Your task to perform on an android device: turn on the 24-hour format for clock Image 0: 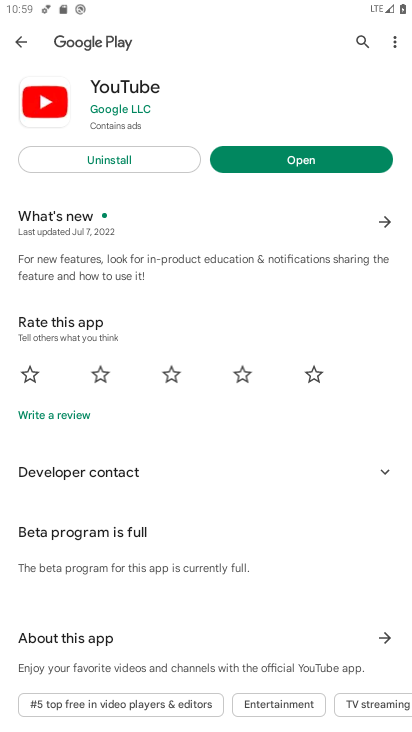
Step 0: press home button
Your task to perform on an android device: turn on the 24-hour format for clock Image 1: 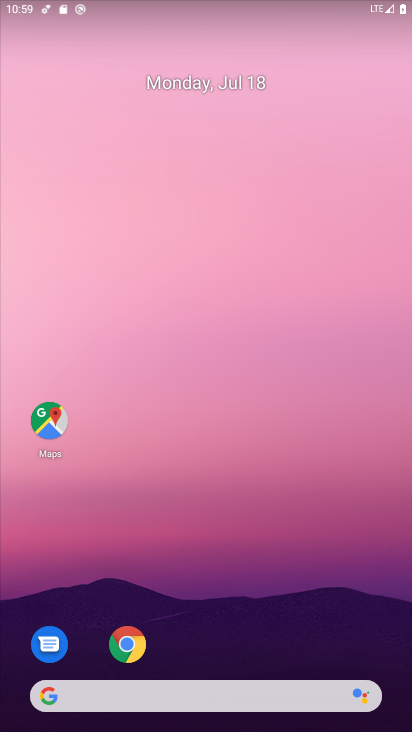
Step 1: drag from (348, 628) to (392, 119)
Your task to perform on an android device: turn on the 24-hour format for clock Image 2: 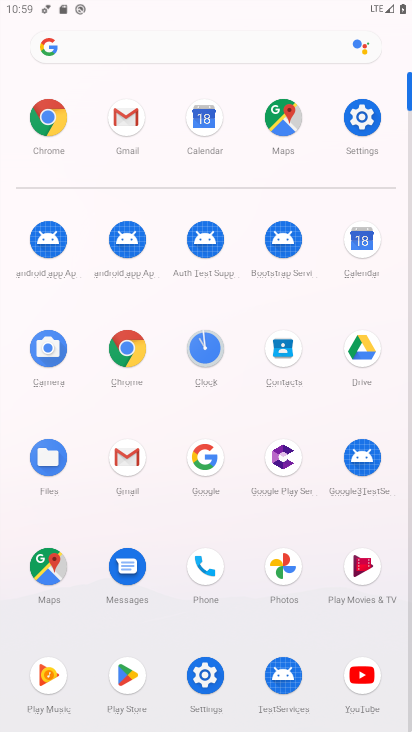
Step 2: click (205, 345)
Your task to perform on an android device: turn on the 24-hour format for clock Image 3: 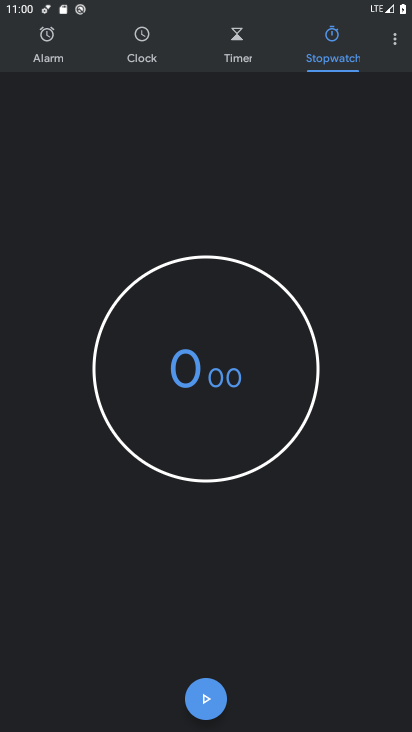
Step 3: click (393, 44)
Your task to perform on an android device: turn on the 24-hour format for clock Image 4: 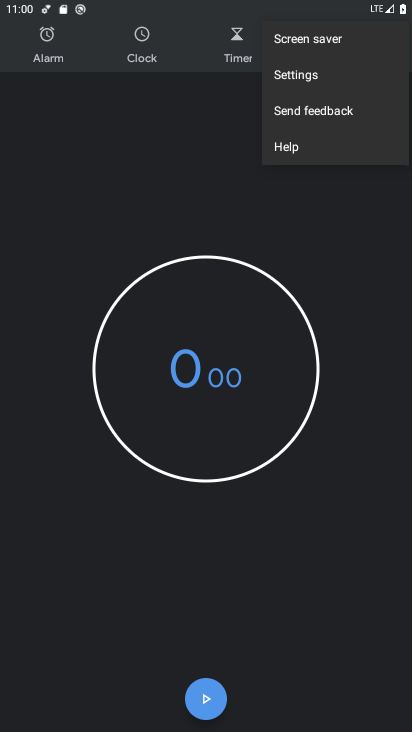
Step 4: click (325, 73)
Your task to perform on an android device: turn on the 24-hour format for clock Image 5: 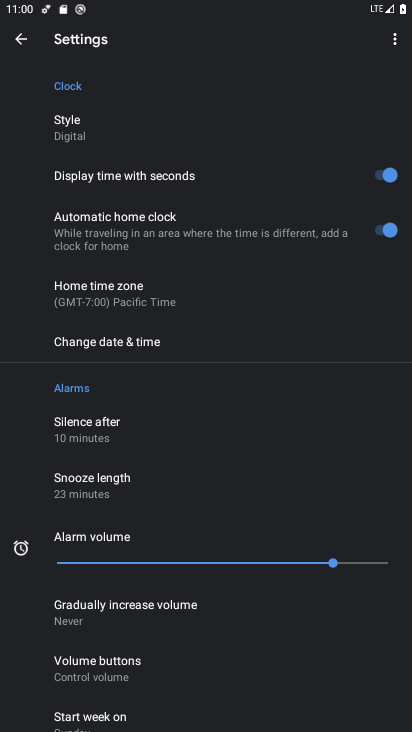
Step 5: drag from (322, 362) to (330, 299)
Your task to perform on an android device: turn on the 24-hour format for clock Image 6: 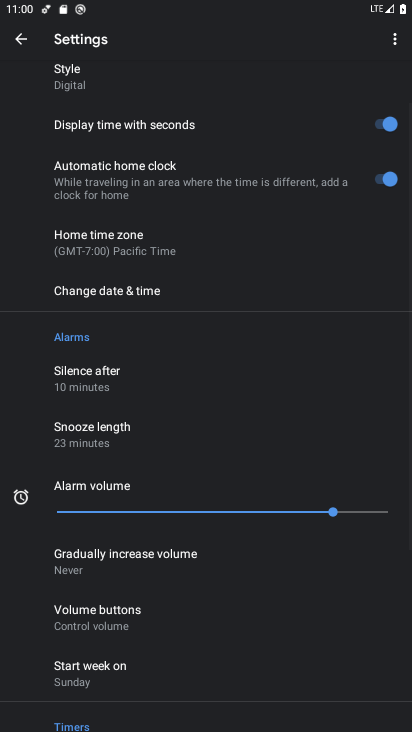
Step 6: drag from (329, 390) to (329, 332)
Your task to perform on an android device: turn on the 24-hour format for clock Image 7: 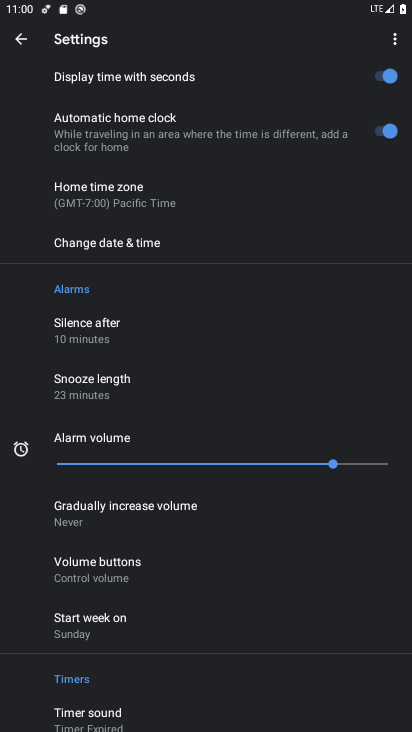
Step 7: drag from (319, 408) to (320, 318)
Your task to perform on an android device: turn on the 24-hour format for clock Image 8: 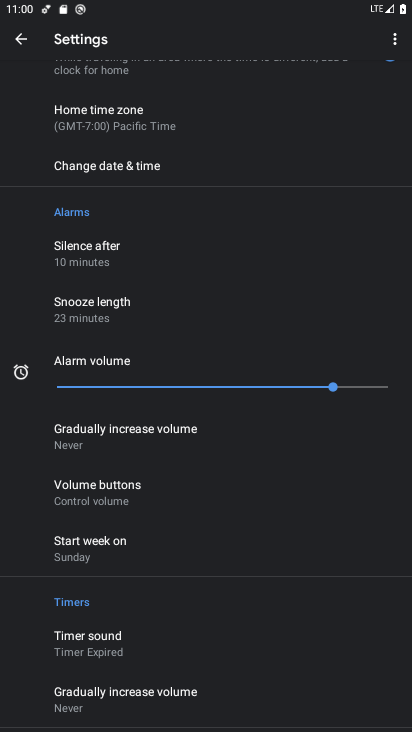
Step 8: drag from (311, 464) to (310, 365)
Your task to perform on an android device: turn on the 24-hour format for clock Image 9: 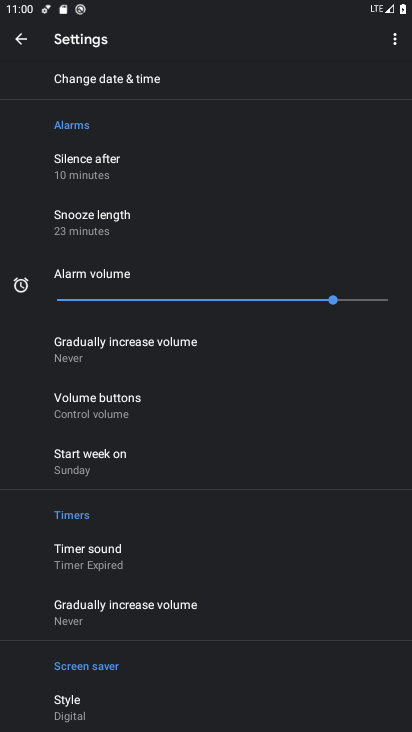
Step 9: drag from (303, 473) to (303, 358)
Your task to perform on an android device: turn on the 24-hour format for clock Image 10: 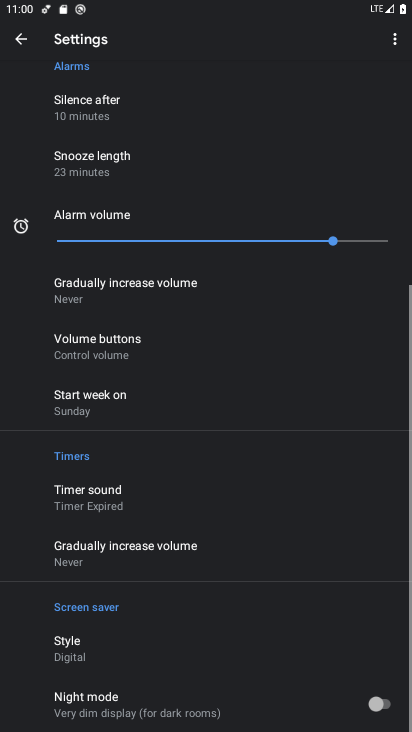
Step 10: drag from (307, 313) to (309, 414)
Your task to perform on an android device: turn on the 24-hour format for clock Image 11: 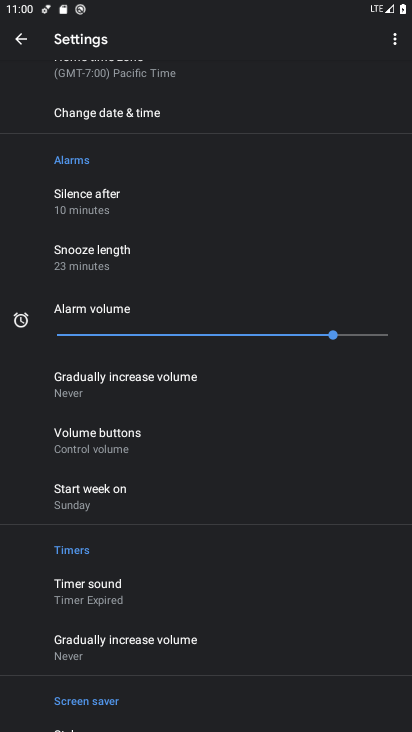
Step 11: drag from (305, 295) to (301, 460)
Your task to perform on an android device: turn on the 24-hour format for clock Image 12: 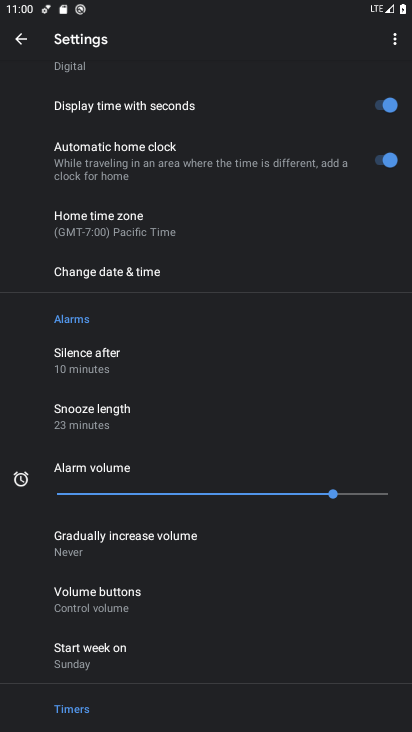
Step 12: drag from (295, 241) to (290, 361)
Your task to perform on an android device: turn on the 24-hour format for clock Image 13: 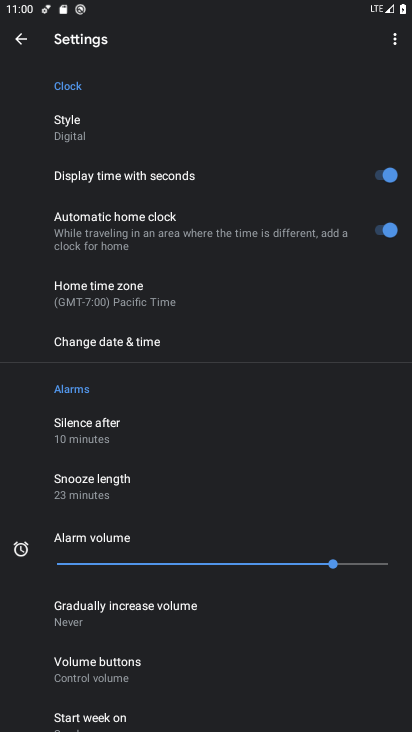
Step 13: click (218, 354)
Your task to perform on an android device: turn on the 24-hour format for clock Image 14: 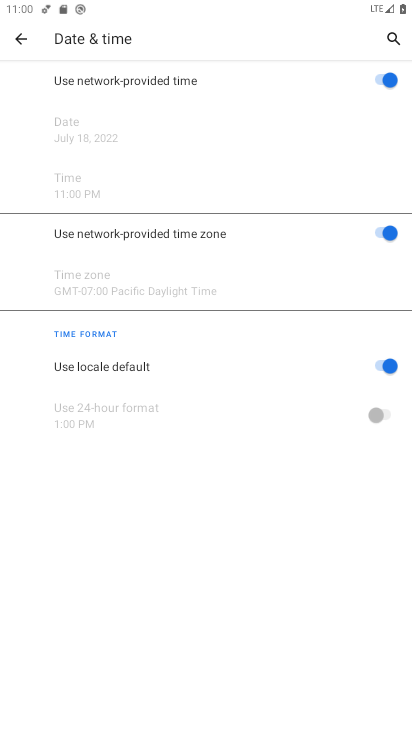
Step 14: click (388, 366)
Your task to perform on an android device: turn on the 24-hour format for clock Image 15: 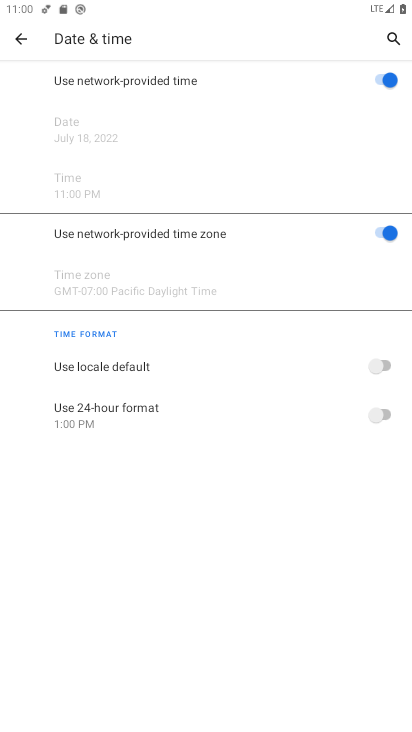
Step 15: click (374, 419)
Your task to perform on an android device: turn on the 24-hour format for clock Image 16: 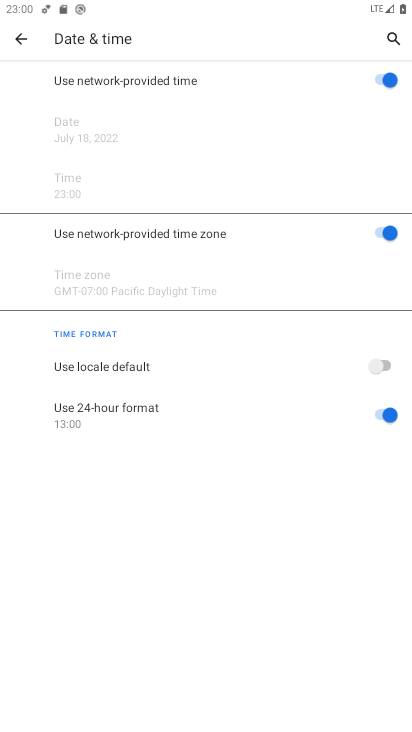
Step 16: task complete